Your task to perform on an android device: Open Google Maps and go to "Timeline" Image 0: 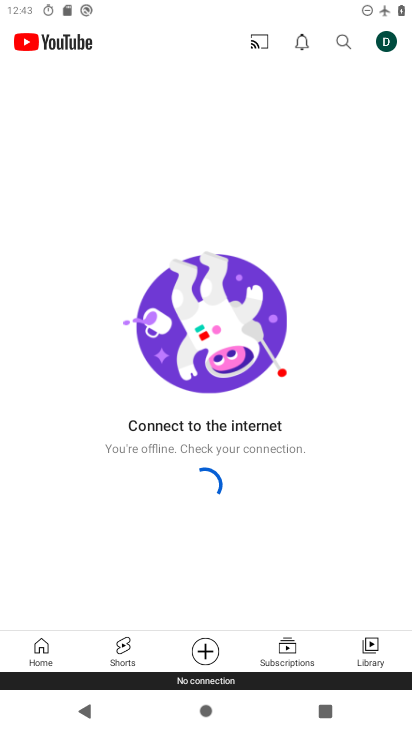
Step 0: press home button
Your task to perform on an android device: Open Google Maps and go to "Timeline" Image 1: 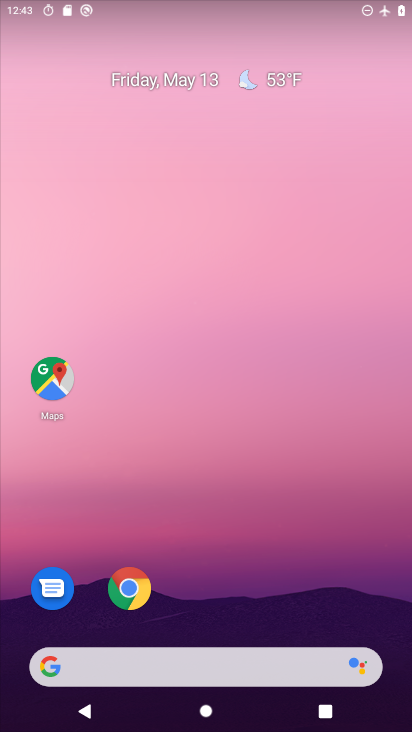
Step 1: click (56, 390)
Your task to perform on an android device: Open Google Maps and go to "Timeline" Image 2: 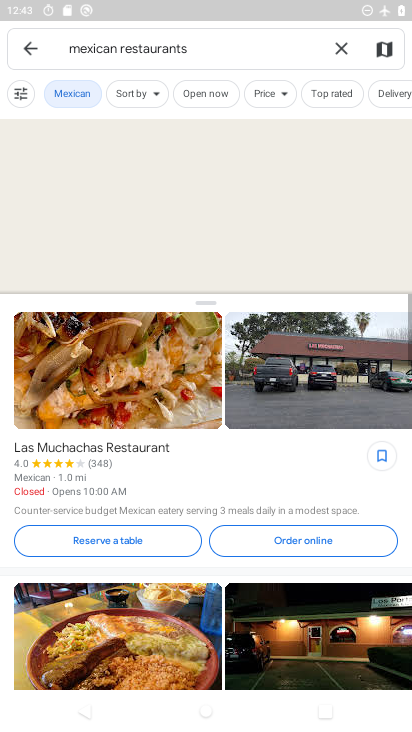
Step 2: click (33, 51)
Your task to perform on an android device: Open Google Maps and go to "Timeline" Image 3: 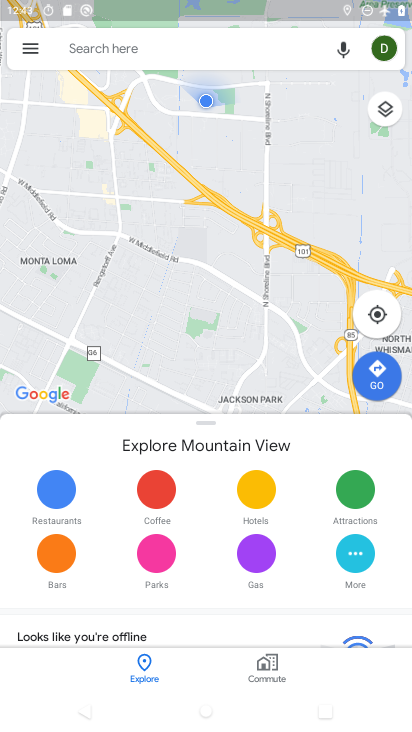
Step 3: click (41, 48)
Your task to perform on an android device: Open Google Maps and go to "Timeline" Image 4: 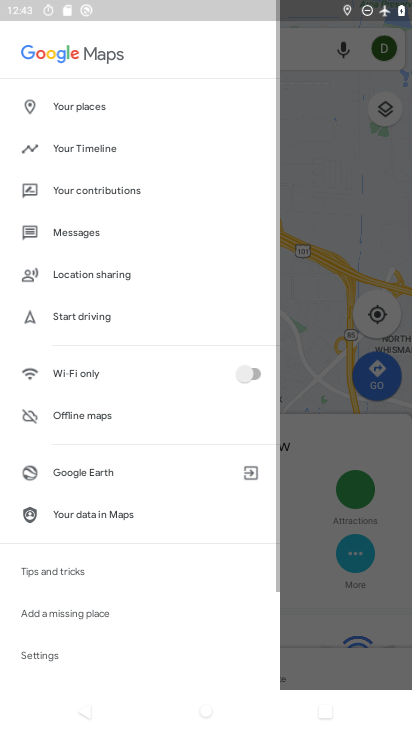
Step 4: drag from (85, 560) to (110, 212)
Your task to perform on an android device: Open Google Maps and go to "Timeline" Image 5: 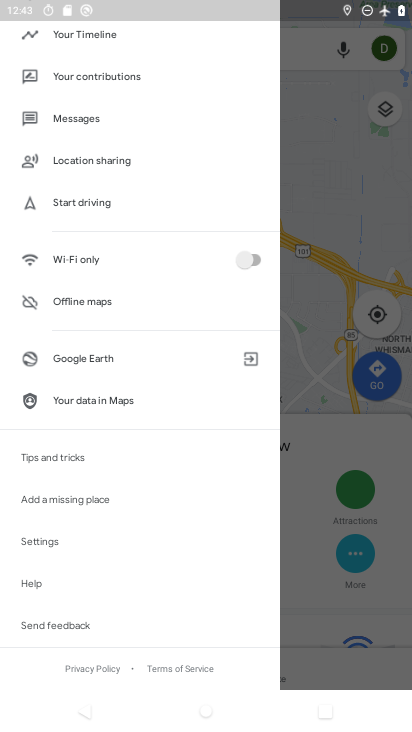
Step 5: drag from (56, 258) to (170, 650)
Your task to perform on an android device: Open Google Maps and go to "Timeline" Image 6: 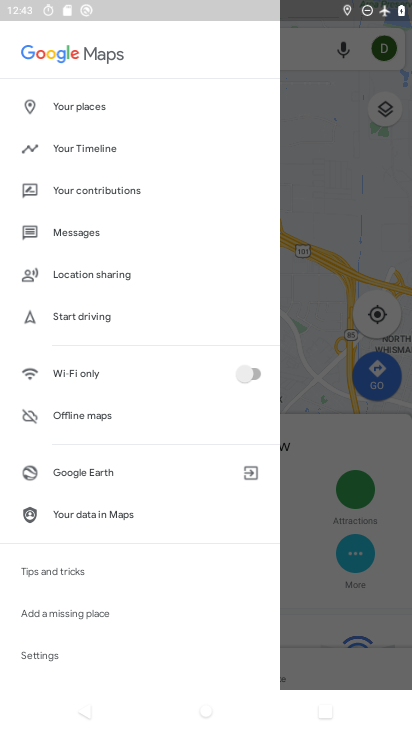
Step 6: click (87, 150)
Your task to perform on an android device: Open Google Maps and go to "Timeline" Image 7: 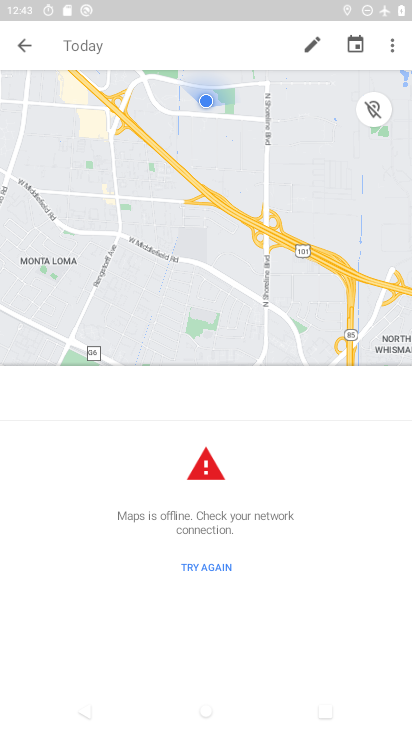
Step 7: task complete